Your task to perform on an android device: visit the assistant section in the google photos Image 0: 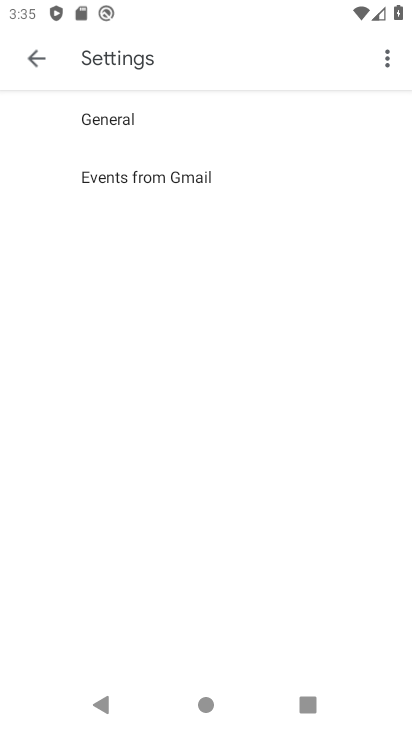
Step 0: press home button
Your task to perform on an android device: visit the assistant section in the google photos Image 1: 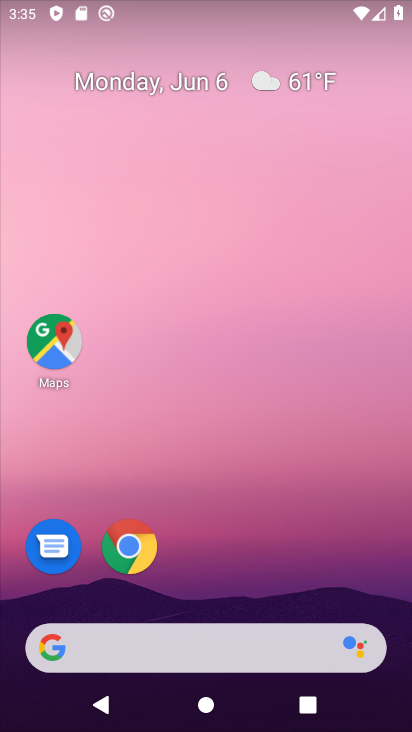
Step 1: drag from (251, 571) to (252, 70)
Your task to perform on an android device: visit the assistant section in the google photos Image 2: 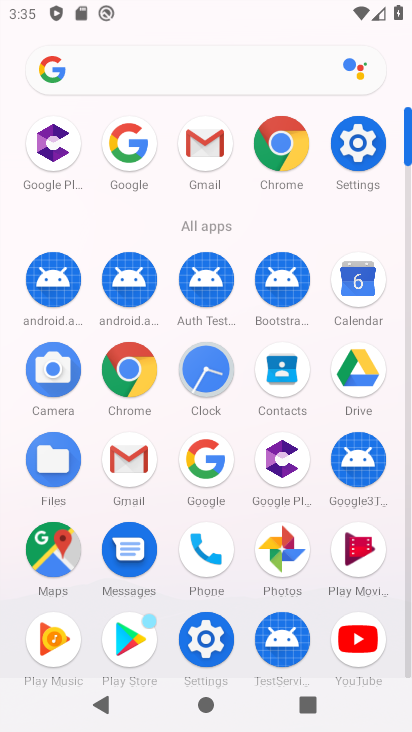
Step 2: click (288, 548)
Your task to perform on an android device: visit the assistant section in the google photos Image 3: 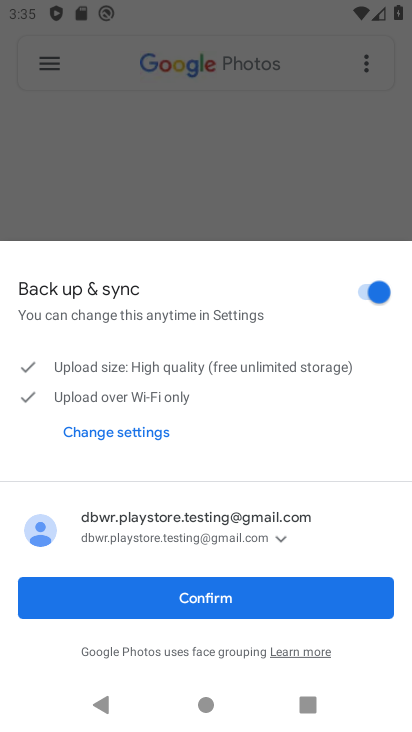
Step 3: click (222, 600)
Your task to perform on an android device: visit the assistant section in the google photos Image 4: 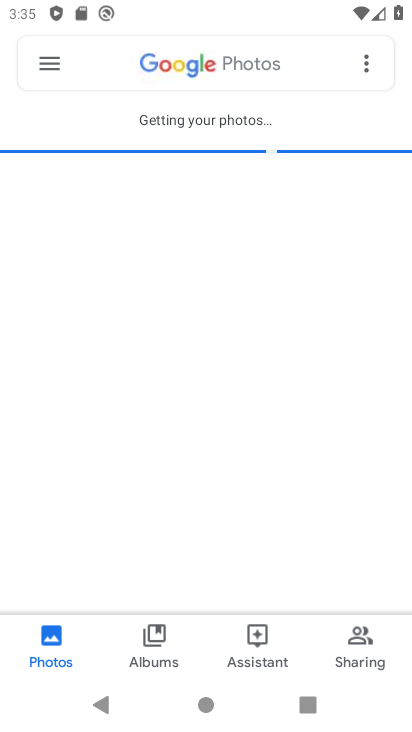
Step 4: click (262, 643)
Your task to perform on an android device: visit the assistant section in the google photos Image 5: 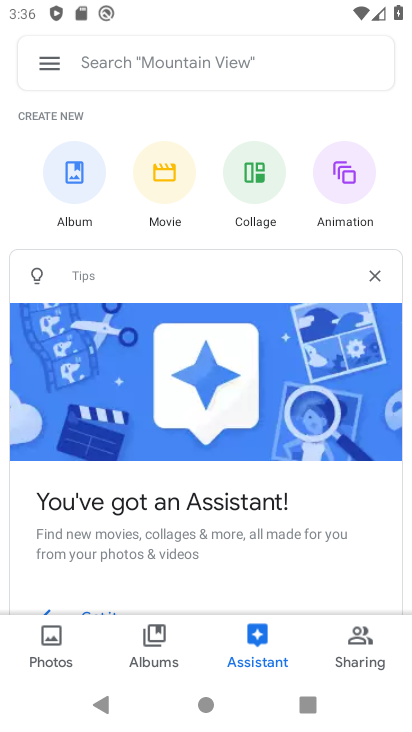
Step 5: task complete